Your task to perform on an android device: Go to Yahoo.com Image 0: 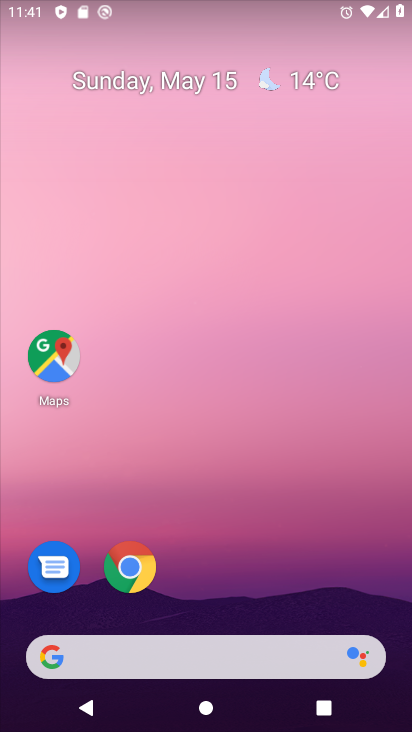
Step 0: click (117, 566)
Your task to perform on an android device: Go to Yahoo.com Image 1: 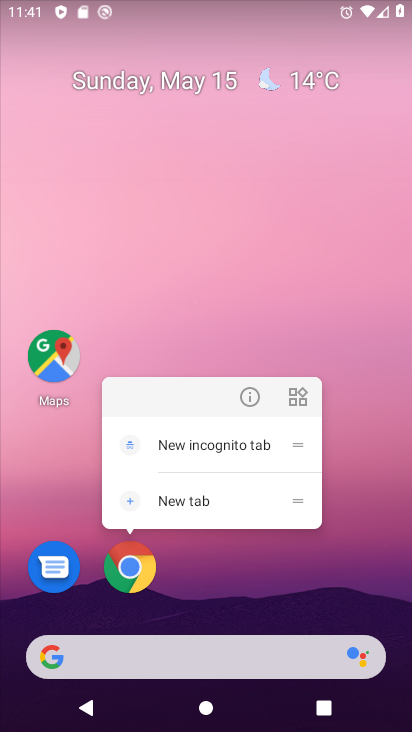
Step 1: click (122, 559)
Your task to perform on an android device: Go to Yahoo.com Image 2: 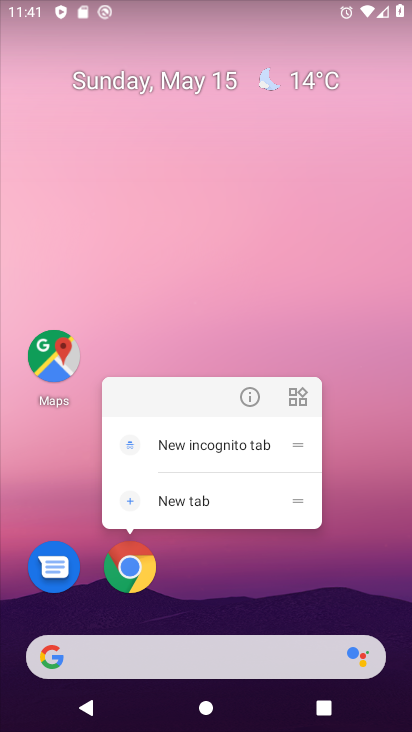
Step 2: click (122, 559)
Your task to perform on an android device: Go to Yahoo.com Image 3: 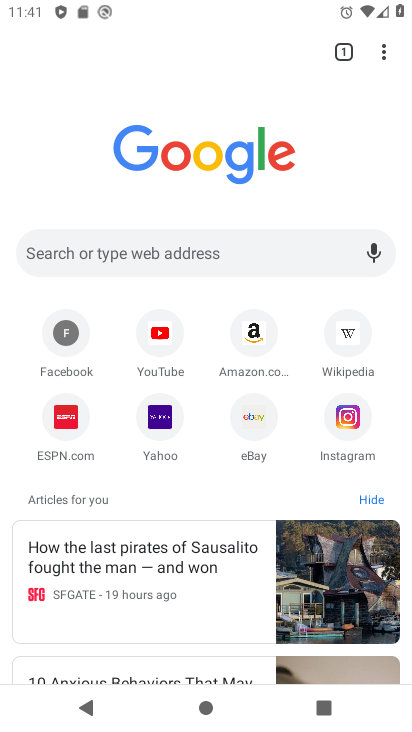
Step 3: click (162, 412)
Your task to perform on an android device: Go to Yahoo.com Image 4: 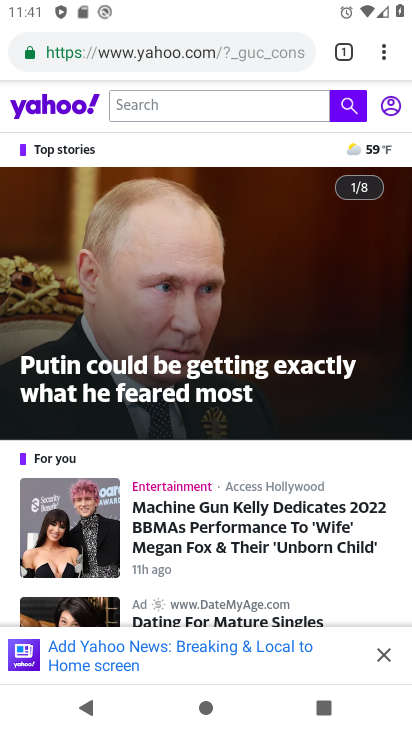
Step 4: task complete